Your task to perform on an android device: Go to Maps Image 0: 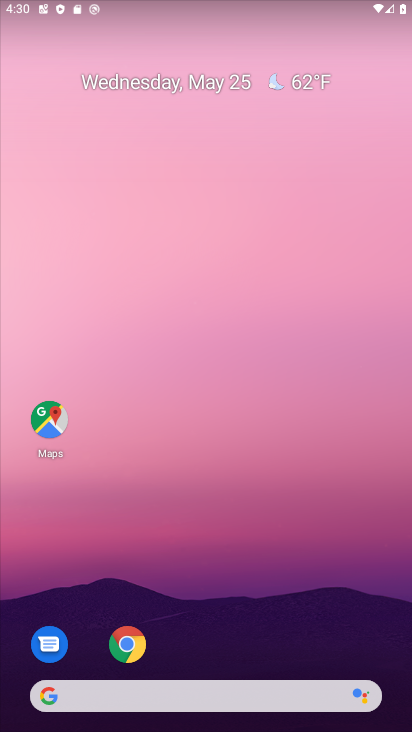
Step 0: click (55, 427)
Your task to perform on an android device: Go to Maps Image 1: 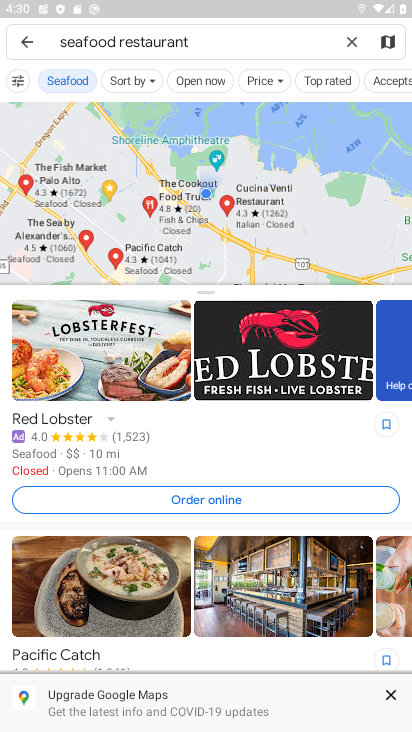
Step 1: task complete